Your task to perform on an android device: Open calendar and show me the first week of next month Image 0: 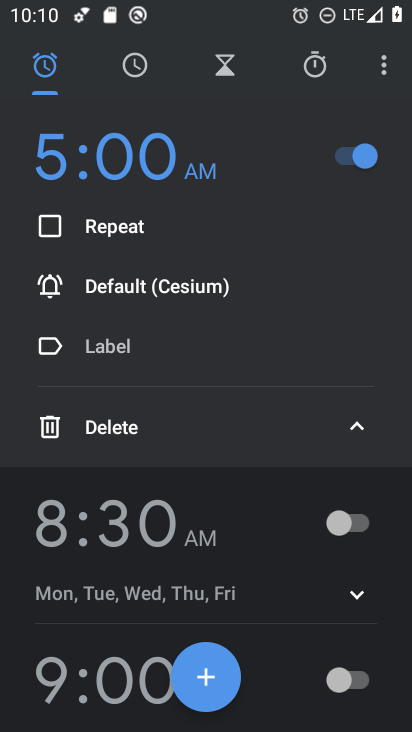
Step 0: press home button
Your task to perform on an android device: Open calendar and show me the first week of next month Image 1: 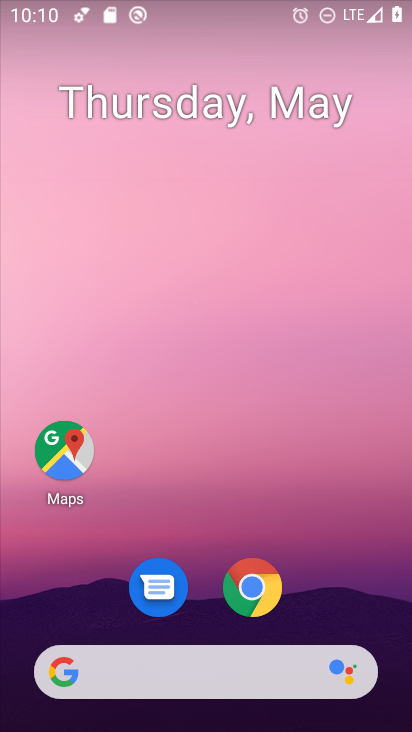
Step 1: drag from (310, 630) to (353, 2)
Your task to perform on an android device: Open calendar and show me the first week of next month Image 2: 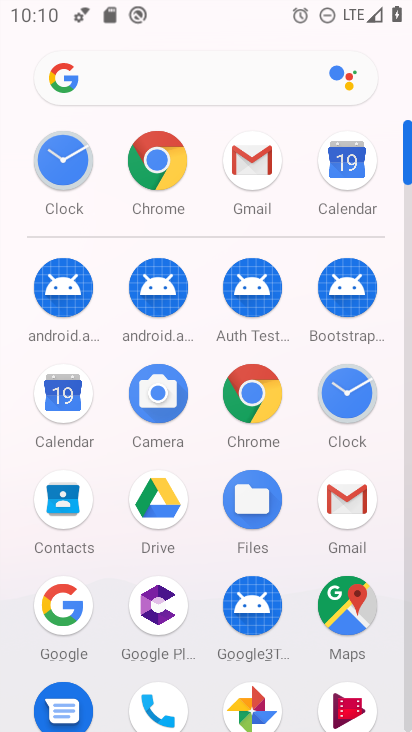
Step 2: click (352, 159)
Your task to perform on an android device: Open calendar and show me the first week of next month Image 3: 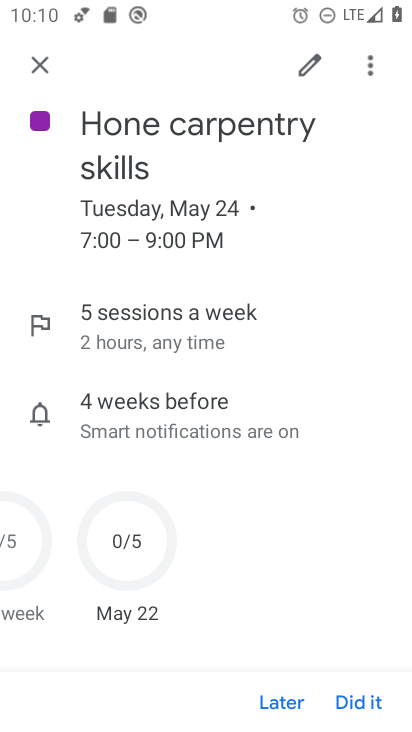
Step 3: click (45, 62)
Your task to perform on an android device: Open calendar and show me the first week of next month Image 4: 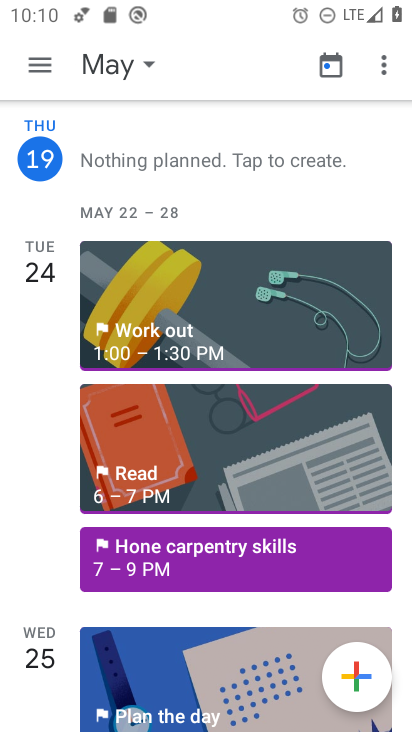
Step 4: click (146, 65)
Your task to perform on an android device: Open calendar and show me the first week of next month Image 5: 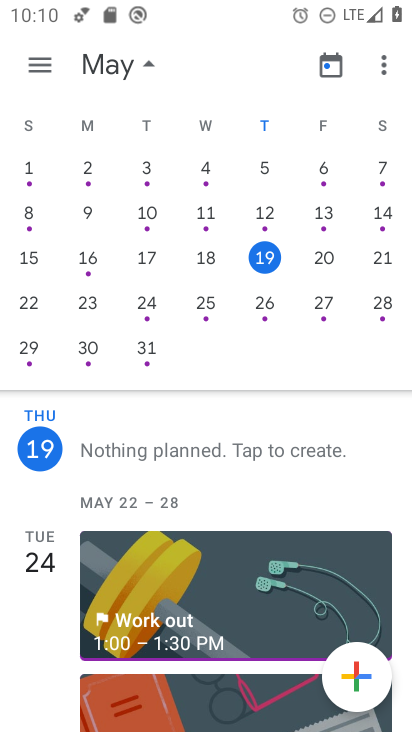
Step 5: drag from (353, 224) to (7, 169)
Your task to perform on an android device: Open calendar and show me the first week of next month Image 6: 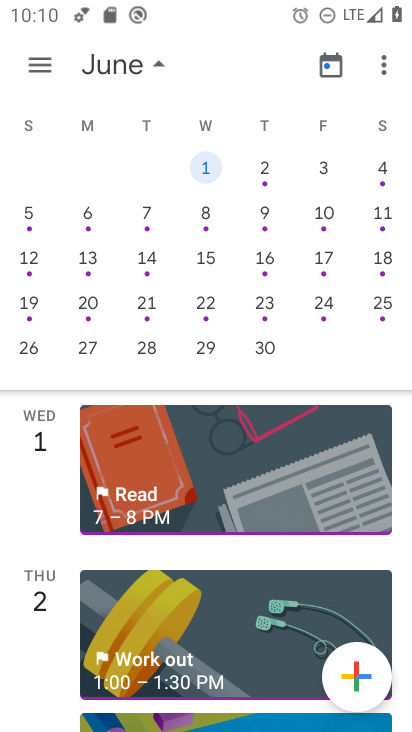
Step 6: click (31, 68)
Your task to perform on an android device: Open calendar and show me the first week of next month Image 7: 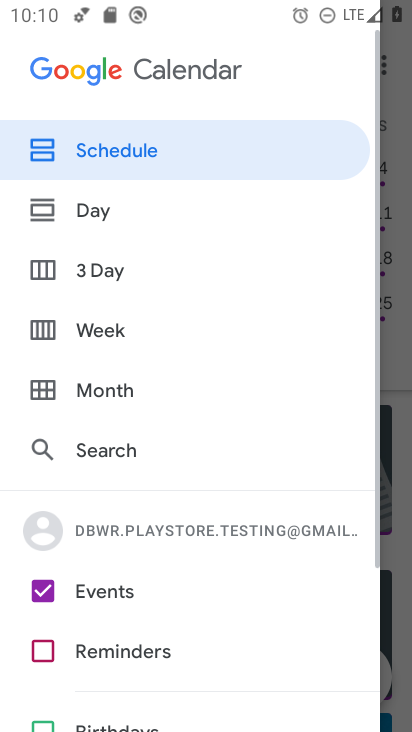
Step 7: click (76, 332)
Your task to perform on an android device: Open calendar and show me the first week of next month Image 8: 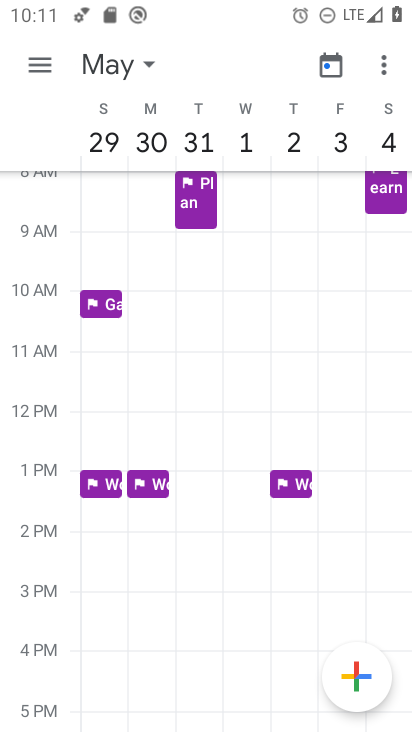
Step 8: task complete